Your task to perform on an android device: Do I have any events today? Image 0: 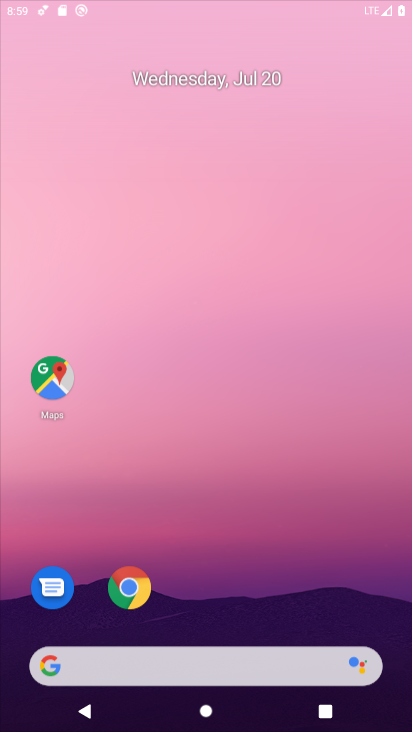
Step 0: press home button
Your task to perform on an android device: Do I have any events today? Image 1: 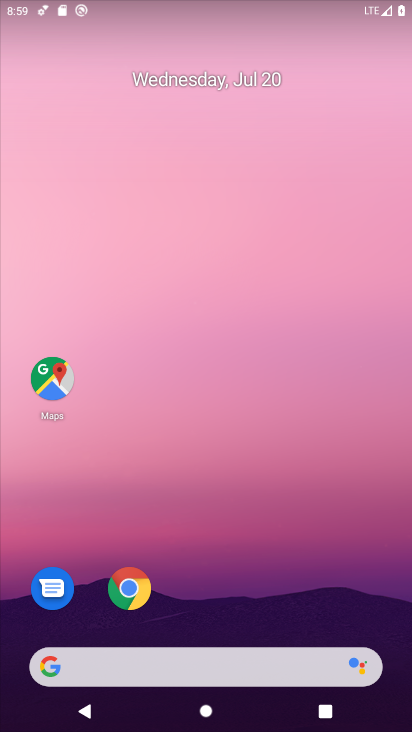
Step 1: drag from (227, 623) to (221, 2)
Your task to perform on an android device: Do I have any events today? Image 2: 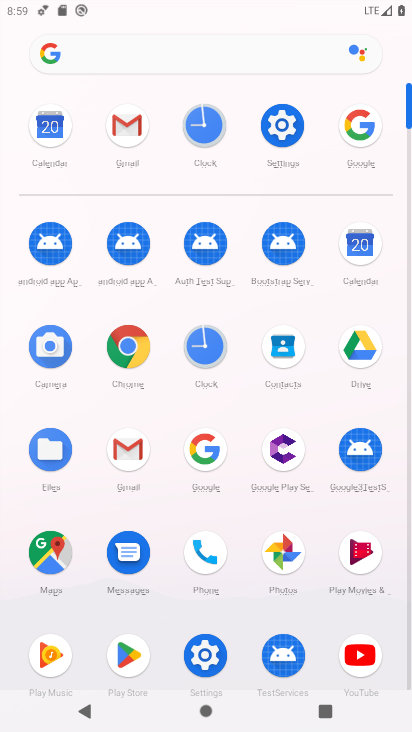
Step 2: click (358, 241)
Your task to perform on an android device: Do I have any events today? Image 3: 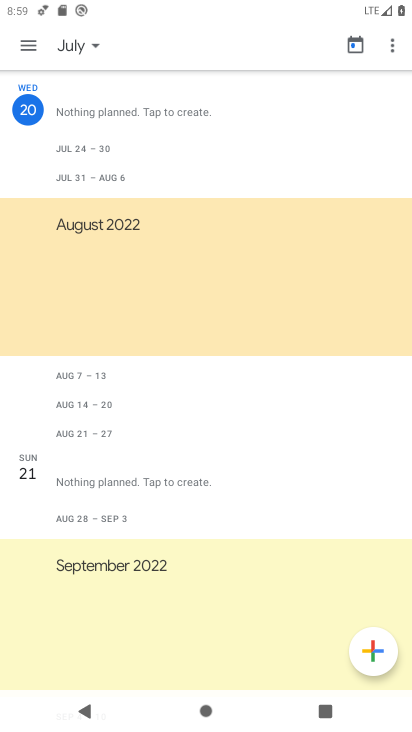
Step 3: click (26, 113)
Your task to perform on an android device: Do I have any events today? Image 4: 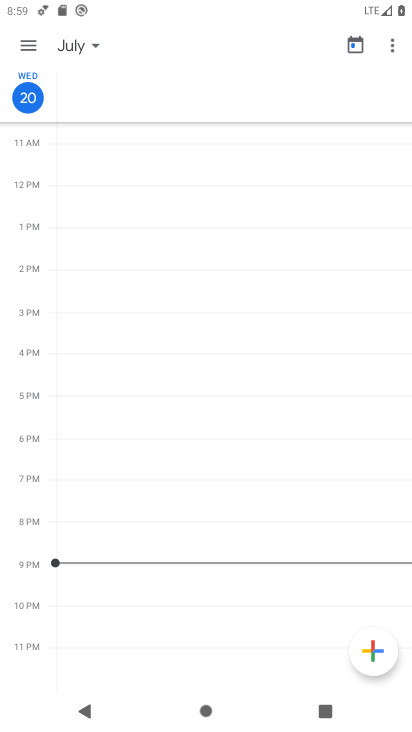
Step 4: task complete